Your task to perform on an android device: Is it going to rain tomorrow? Image 0: 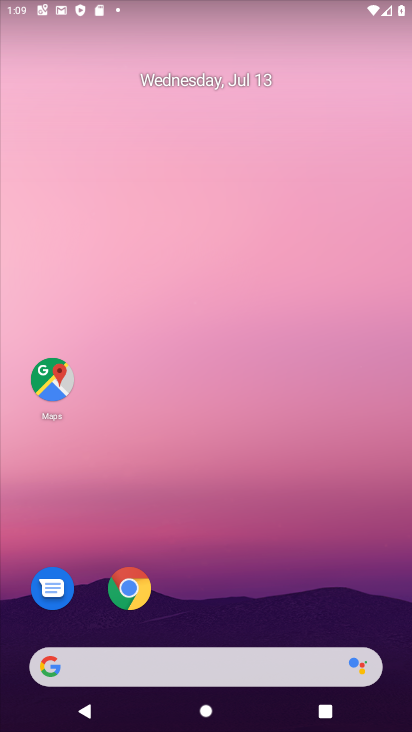
Step 0: drag from (250, 582) to (235, 300)
Your task to perform on an android device: Is it going to rain tomorrow? Image 1: 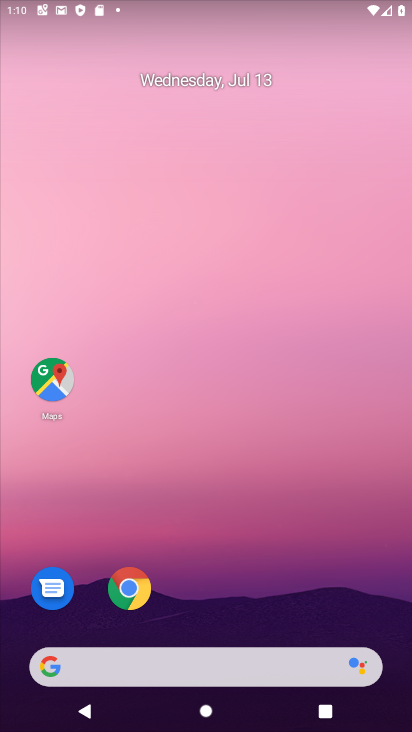
Step 1: click (137, 612)
Your task to perform on an android device: Is it going to rain tomorrow? Image 2: 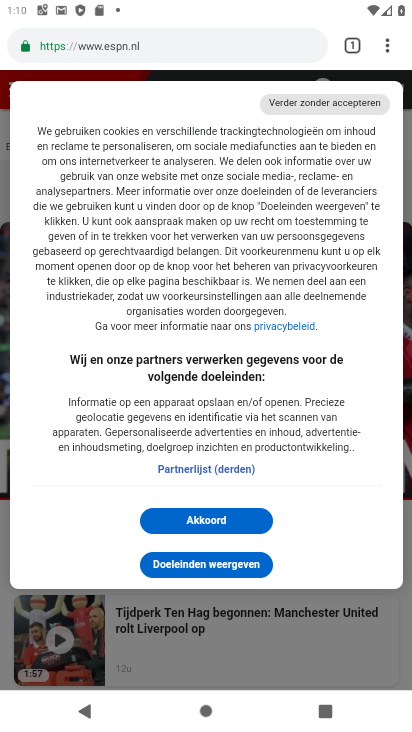
Step 2: click (164, 50)
Your task to perform on an android device: Is it going to rain tomorrow? Image 3: 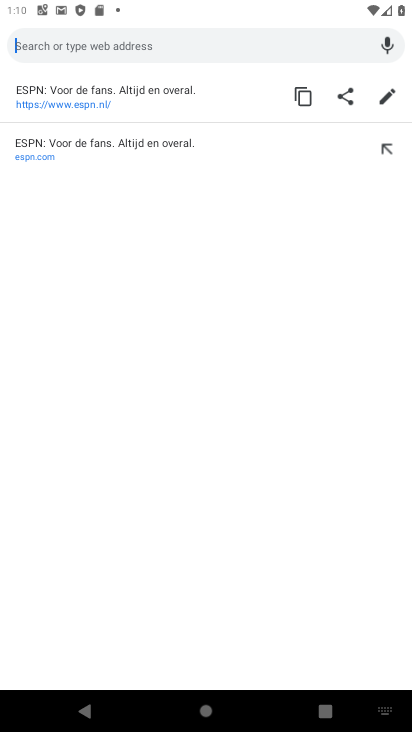
Step 3: type "Is it going to rain tomorrow?"
Your task to perform on an android device: Is it going to rain tomorrow? Image 4: 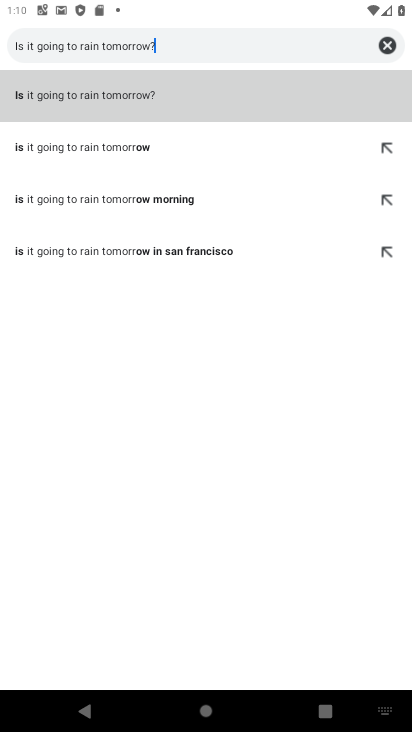
Step 4: type ""
Your task to perform on an android device: Is it going to rain tomorrow? Image 5: 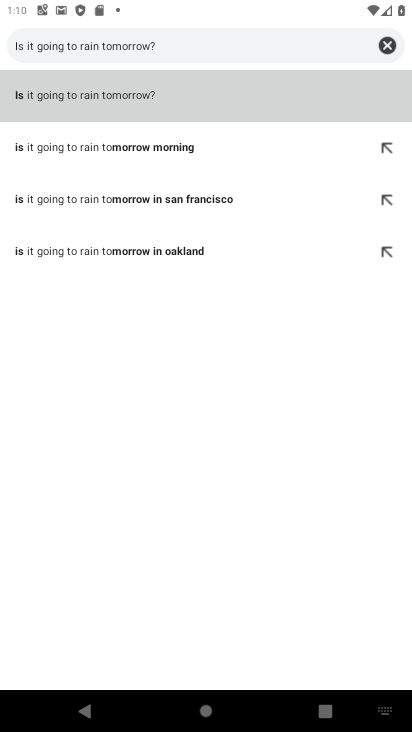
Step 5: click (131, 106)
Your task to perform on an android device: Is it going to rain tomorrow? Image 6: 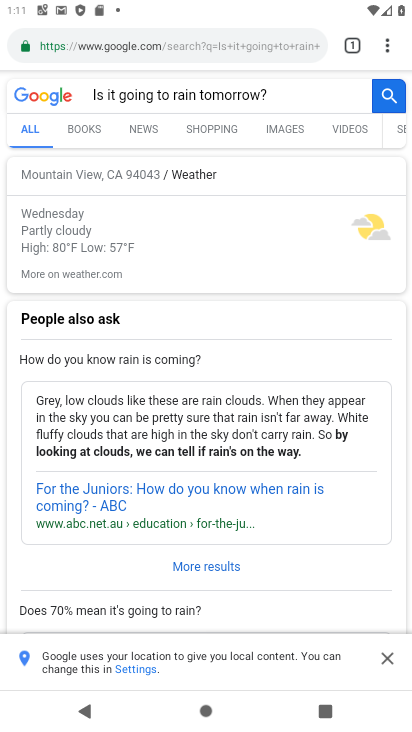
Step 6: task complete